Your task to perform on an android device: Show me popular videos on Youtube Image 0: 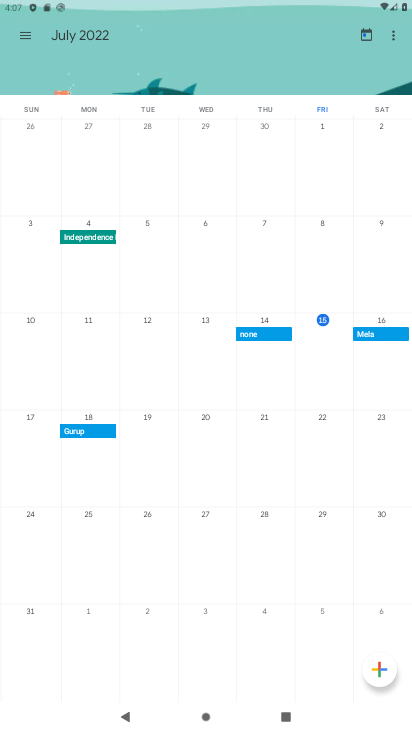
Step 0: press home button
Your task to perform on an android device: Show me popular videos on Youtube Image 1: 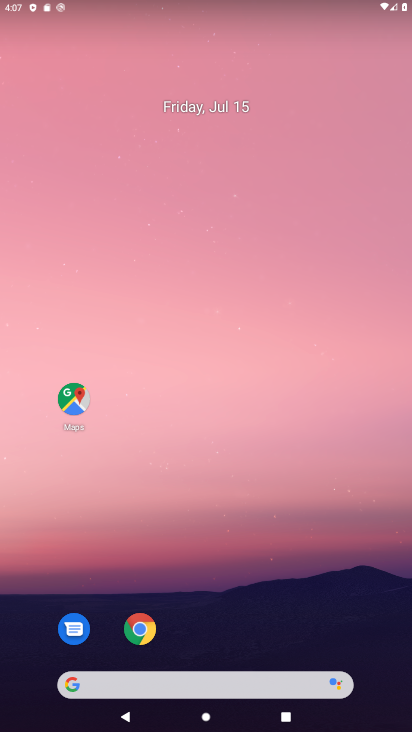
Step 1: click (238, 144)
Your task to perform on an android device: Show me popular videos on Youtube Image 2: 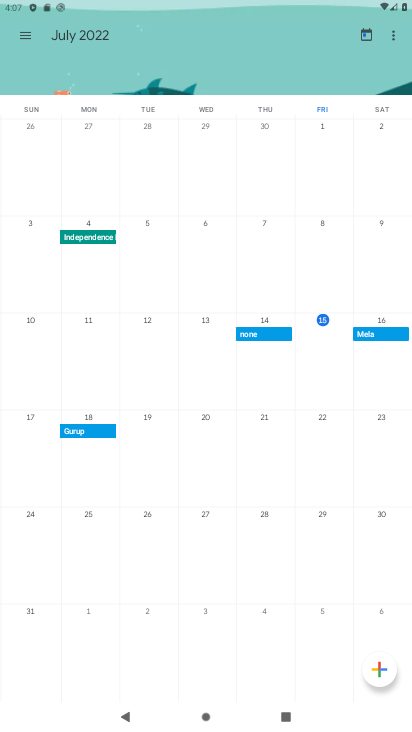
Step 2: press home button
Your task to perform on an android device: Show me popular videos on Youtube Image 3: 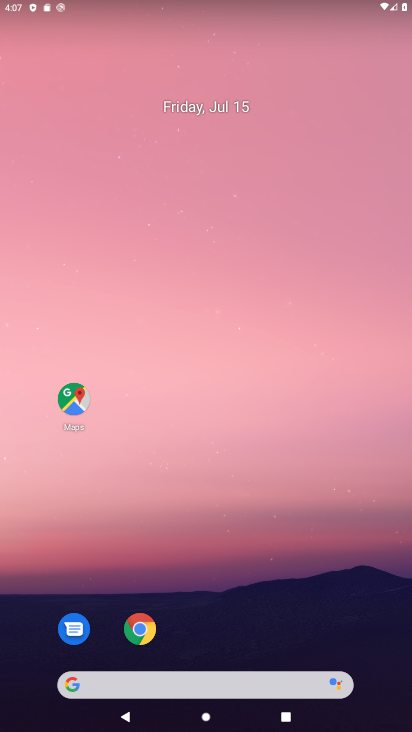
Step 3: drag from (198, 649) to (200, 88)
Your task to perform on an android device: Show me popular videos on Youtube Image 4: 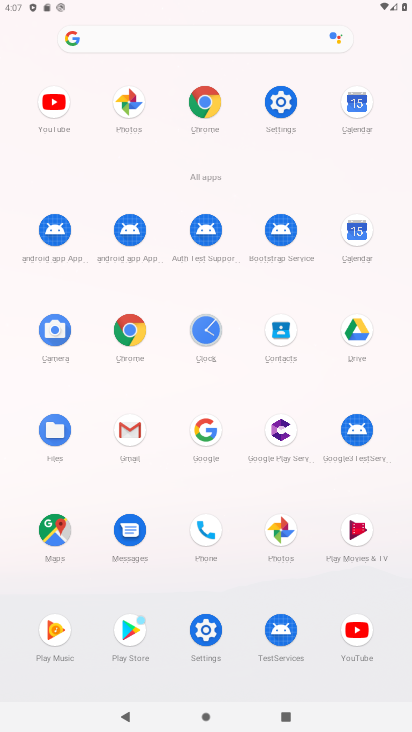
Step 4: click (353, 620)
Your task to perform on an android device: Show me popular videos on Youtube Image 5: 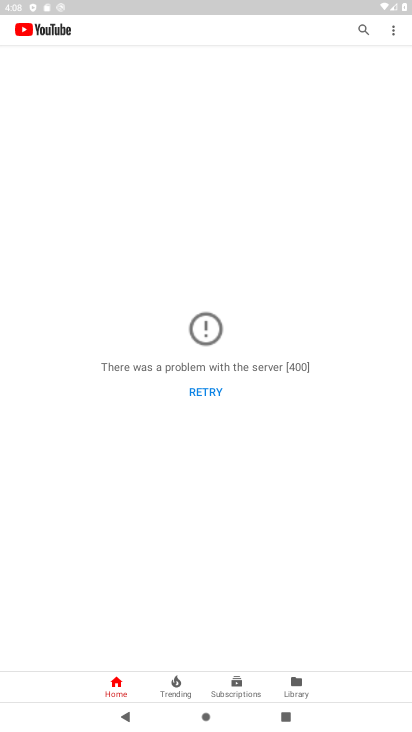
Step 5: task complete